Your task to perform on an android device: toggle airplane mode Image 0: 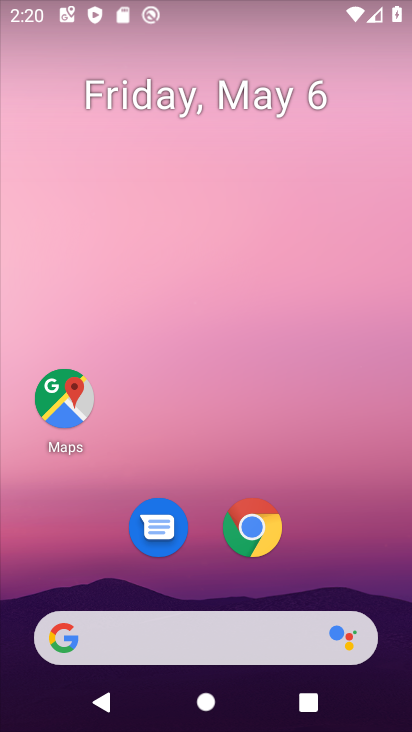
Step 0: drag from (330, 571) to (319, 107)
Your task to perform on an android device: toggle airplane mode Image 1: 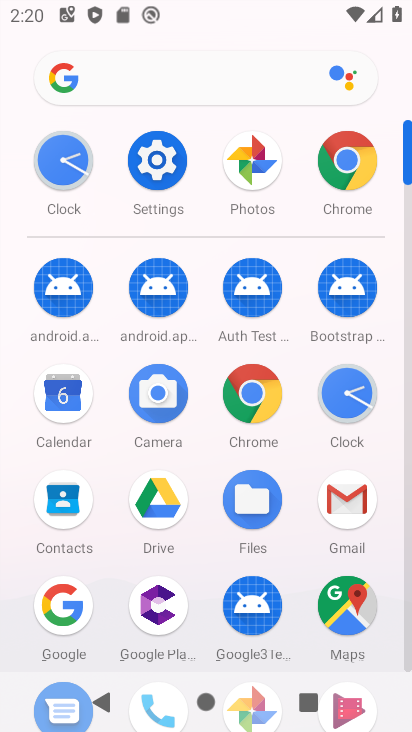
Step 1: drag from (234, 13) to (242, 461)
Your task to perform on an android device: toggle airplane mode Image 2: 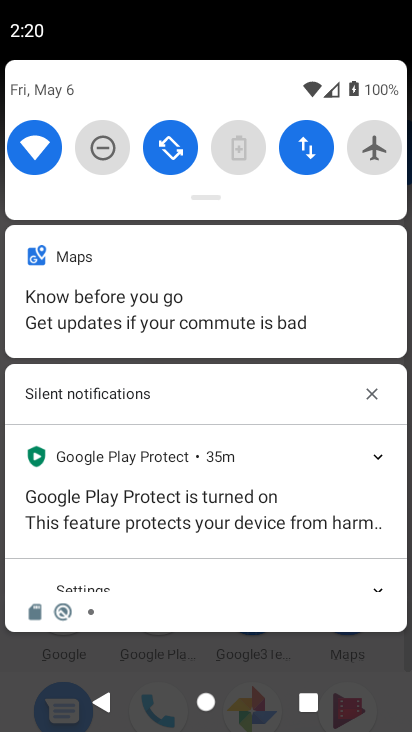
Step 2: click (378, 146)
Your task to perform on an android device: toggle airplane mode Image 3: 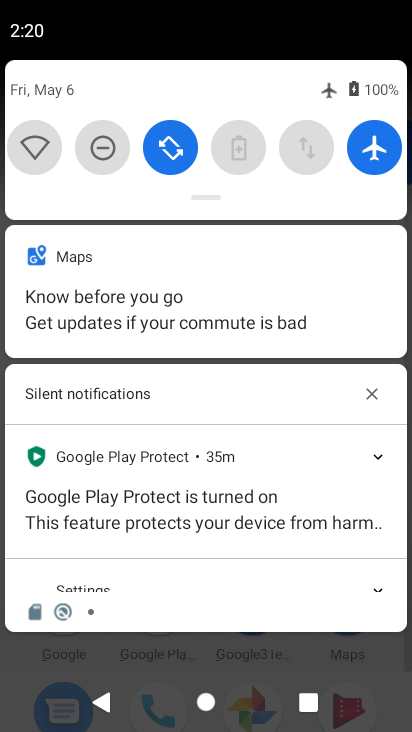
Step 3: task complete